Your task to perform on an android device: open the mobile data screen to see how much data has been used Image 0: 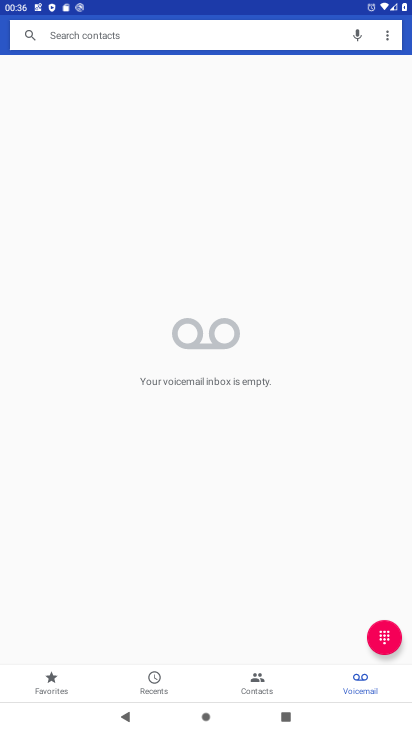
Step 0: press home button
Your task to perform on an android device: open the mobile data screen to see how much data has been used Image 1: 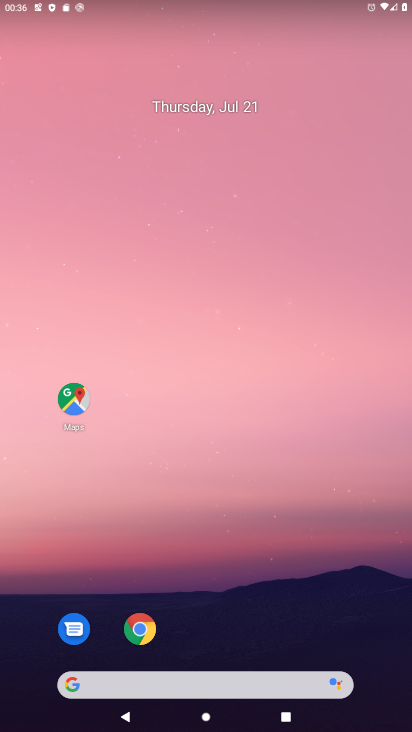
Step 1: drag from (278, 609) to (171, 97)
Your task to perform on an android device: open the mobile data screen to see how much data has been used Image 2: 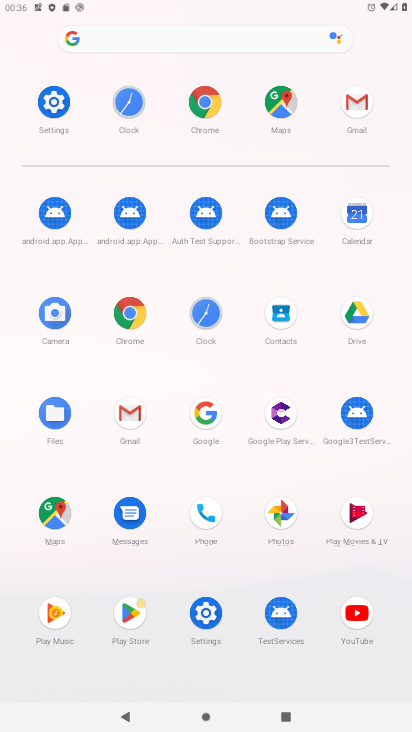
Step 2: click (48, 94)
Your task to perform on an android device: open the mobile data screen to see how much data has been used Image 3: 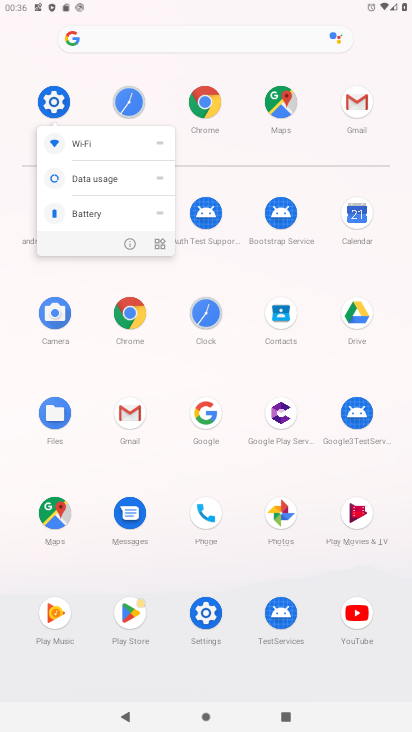
Step 3: click (58, 113)
Your task to perform on an android device: open the mobile data screen to see how much data has been used Image 4: 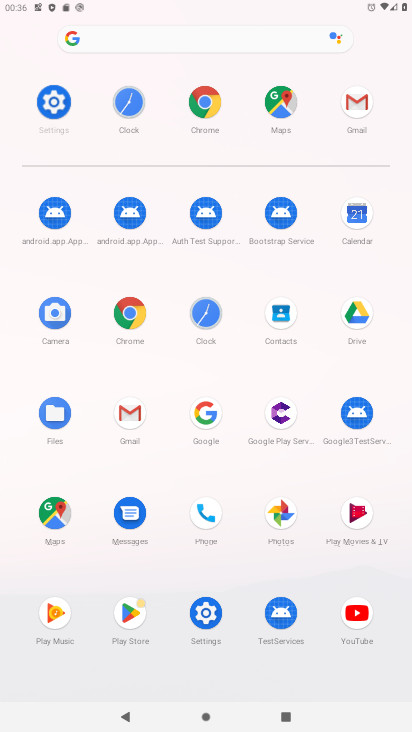
Step 4: click (58, 95)
Your task to perform on an android device: open the mobile data screen to see how much data has been used Image 5: 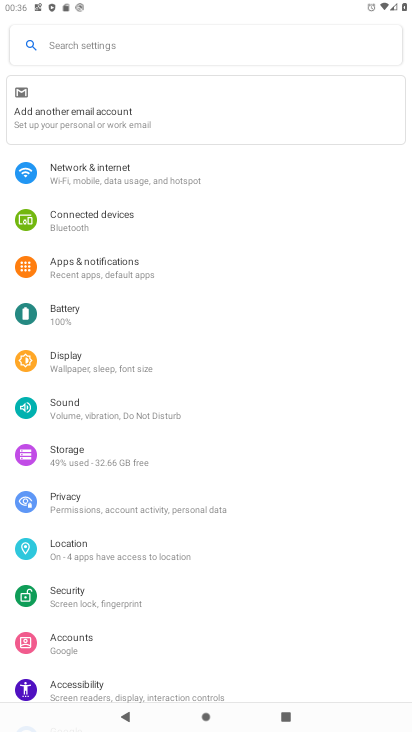
Step 5: click (129, 170)
Your task to perform on an android device: open the mobile data screen to see how much data has been used Image 6: 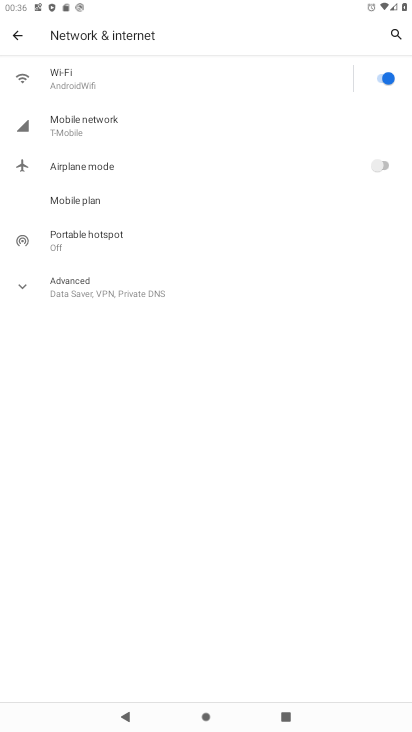
Step 6: click (122, 134)
Your task to perform on an android device: open the mobile data screen to see how much data has been used Image 7: 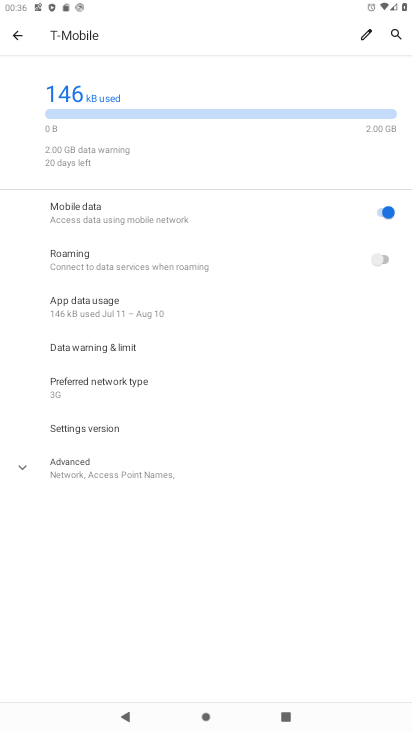
Step 7: task complete